Your task to perform on an android device: Go to CNN.com Image 0: 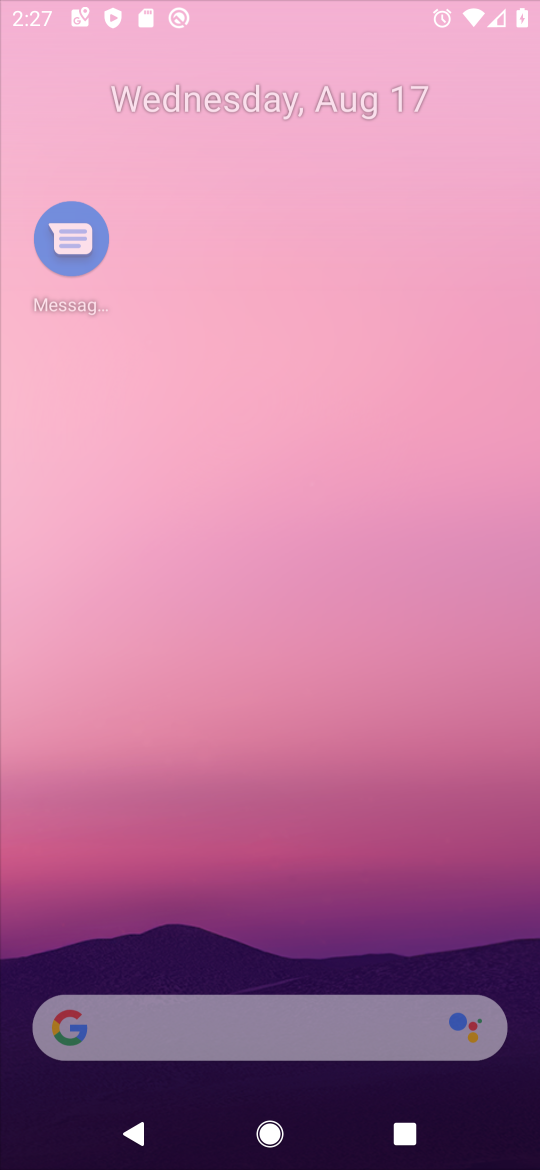
Step 0: click (22, 89)
Your task to perform on an android device: Go to CNN.com Image 1: 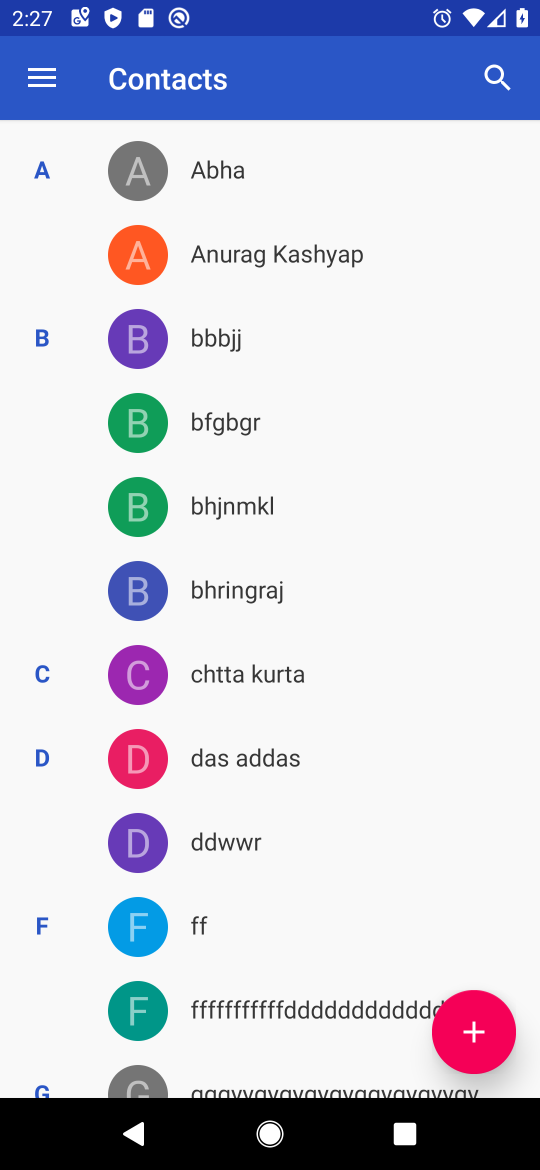
Step 1: press home button
Your task to perform on an android device: Go to CNN.com Image 2: 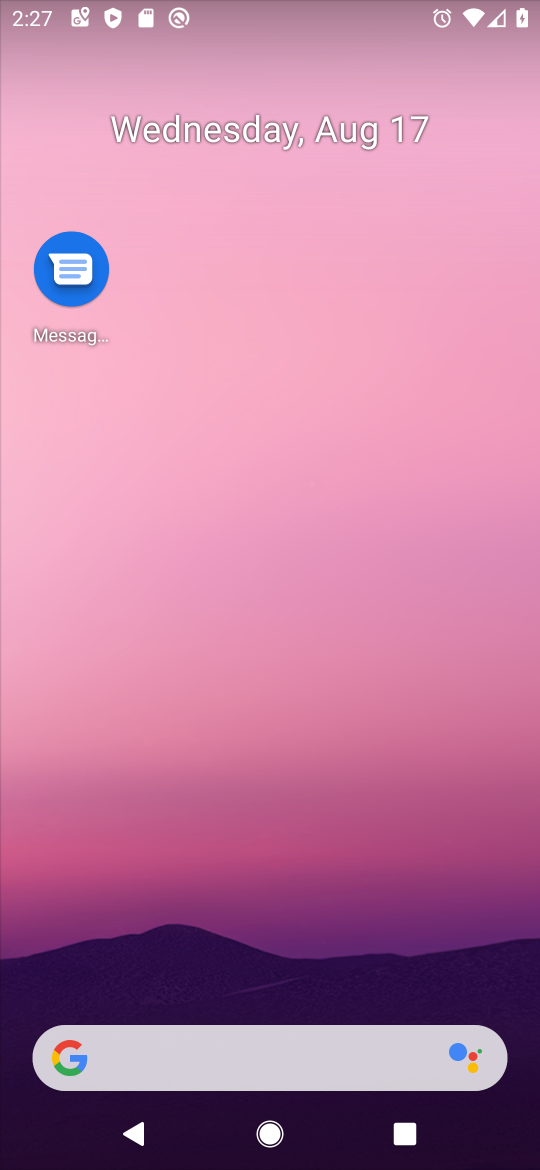
Step 2: drag from (325, 988) to (238, 213)
Your task to perform on an android device: Go to CNN.com Image 3: 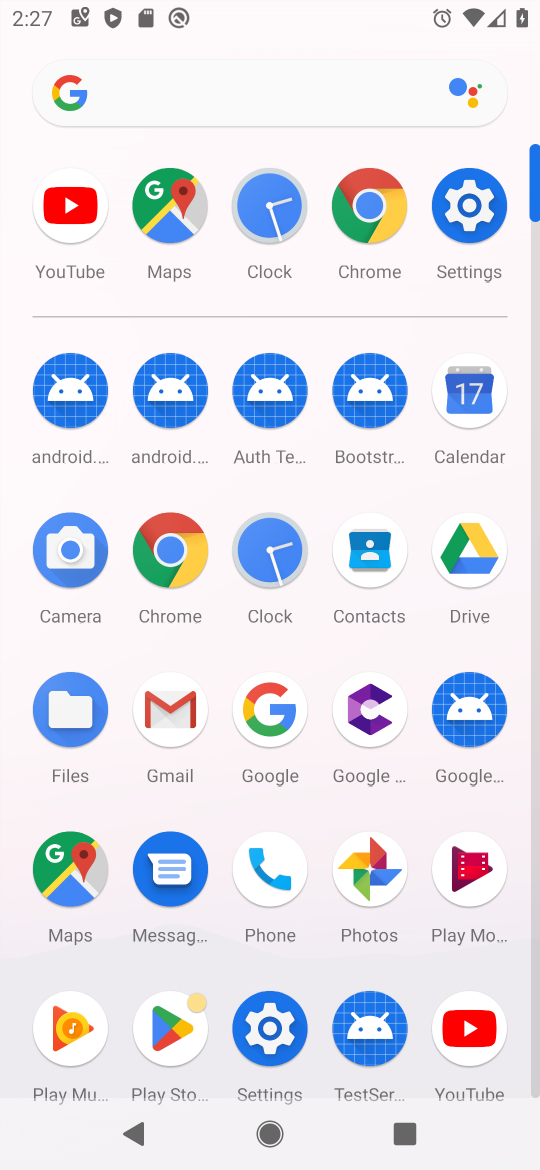
Step 3: click (365, 225)
Your task to perform on an android device: Go to CNN.com Image 4: 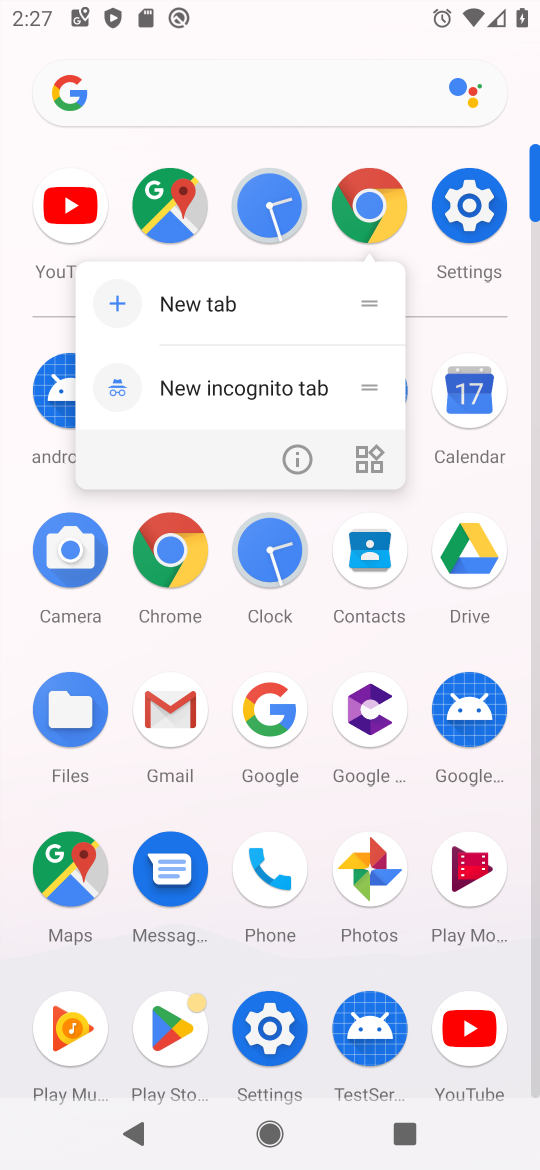
Step 4: click (365, 225)
Your task to perform on an android device: Go to CNN.com Image 5: 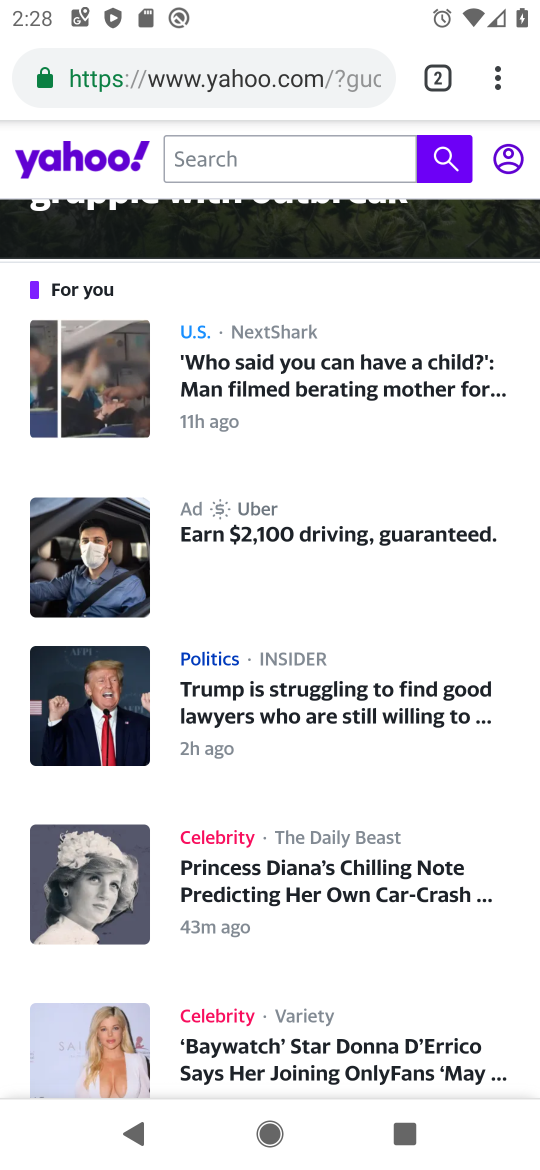
Step 5: click (432, 84)
Your task to perform on an android device: Go to CNN.com Image 6: 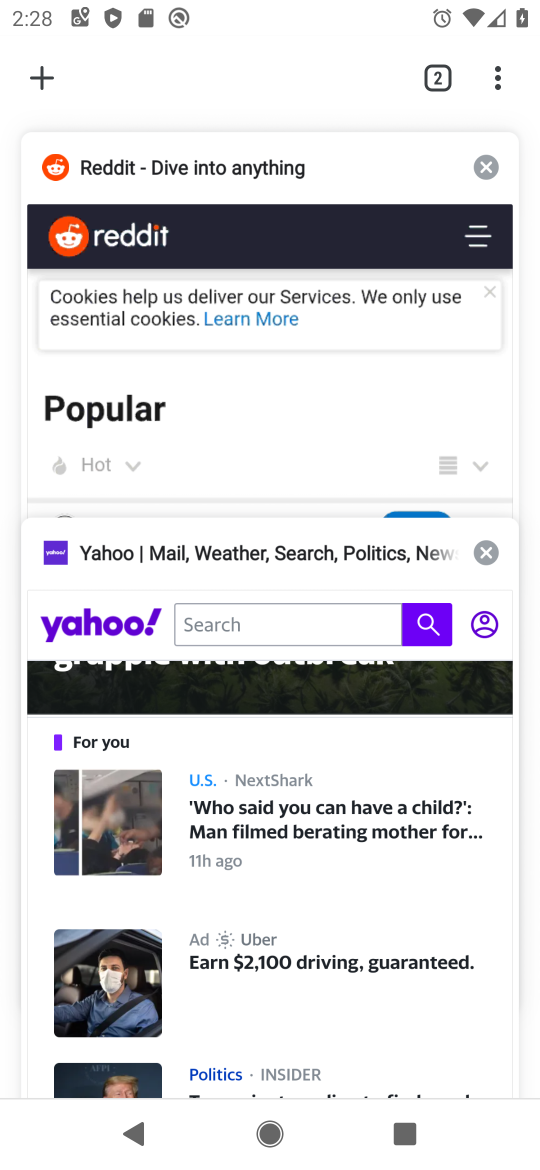
Step 6: click (42, 72)
Your task to perform on an android device: Go to CNN.com Image 7: 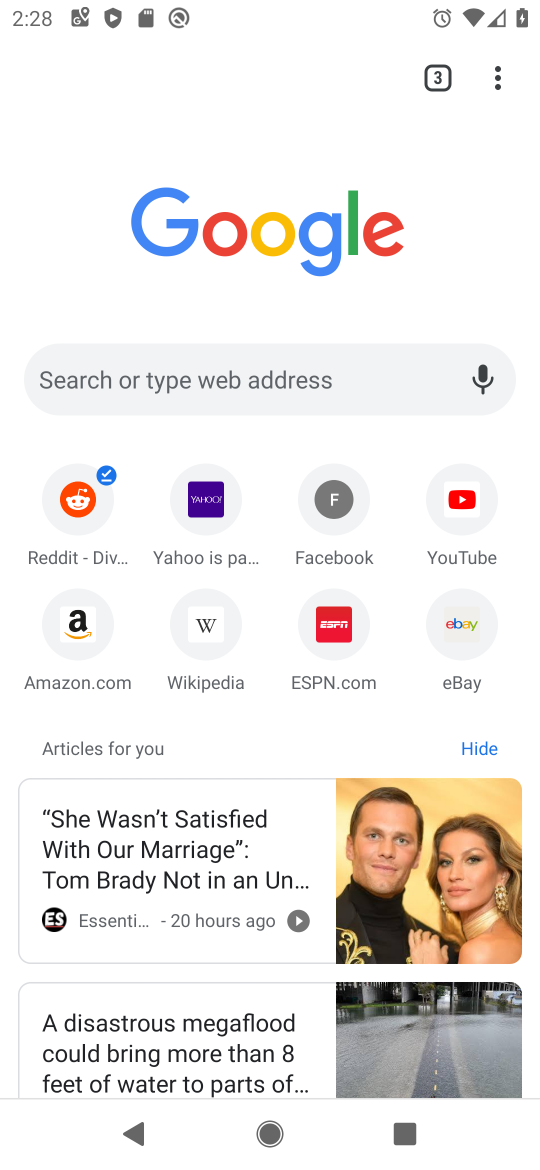
Step 7: click (185, 377)
Your task to perform on an android device: Go to CNN.com Image 8: 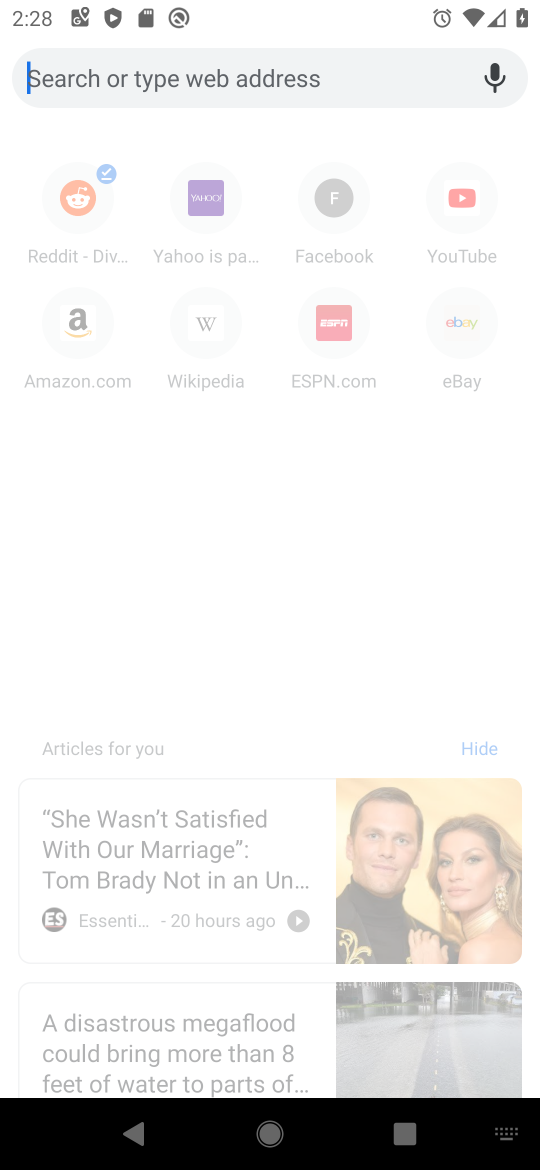
Step 8: type "cnn"
Your task to perform on an android device: Go to CNN.com Image 9: 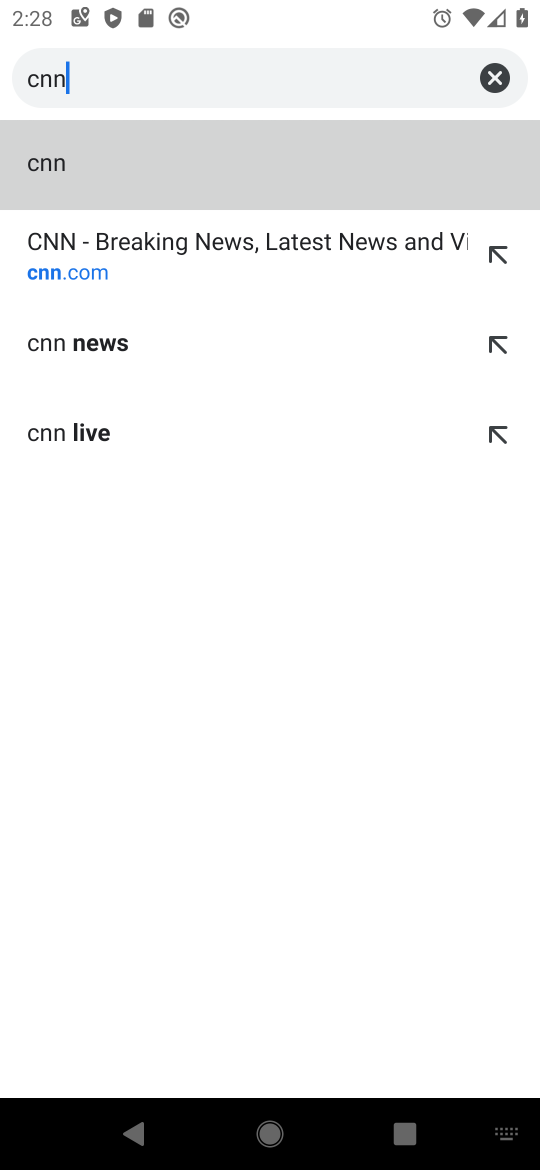
Step 9: click (242, 234)
Your task to perform on an android device: Go to CNN.com Image 10: 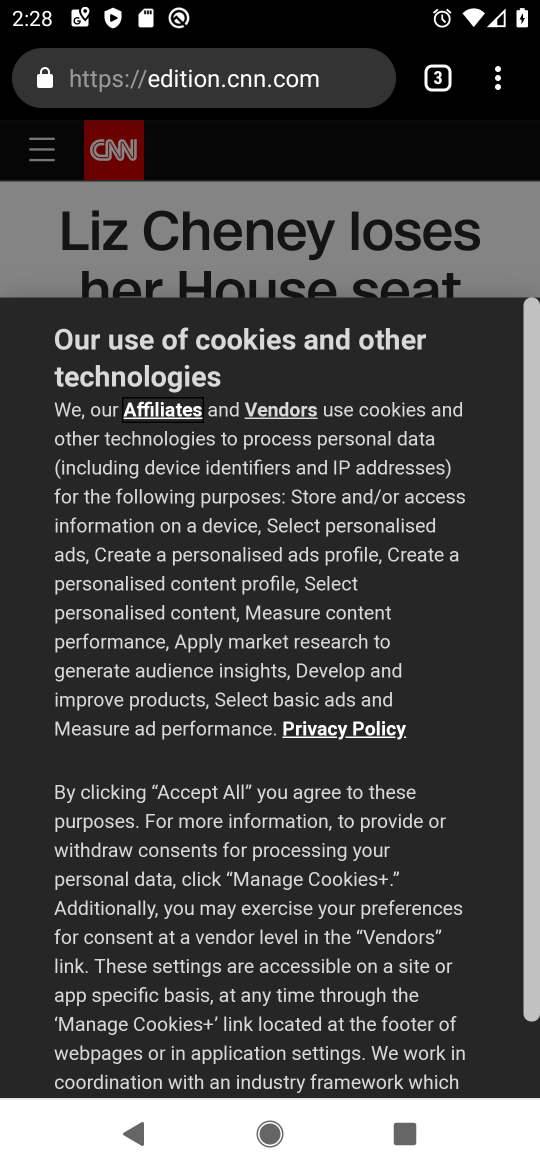
Step 10: task complete